Your task to perform on an android device: Open network settings Image 0: 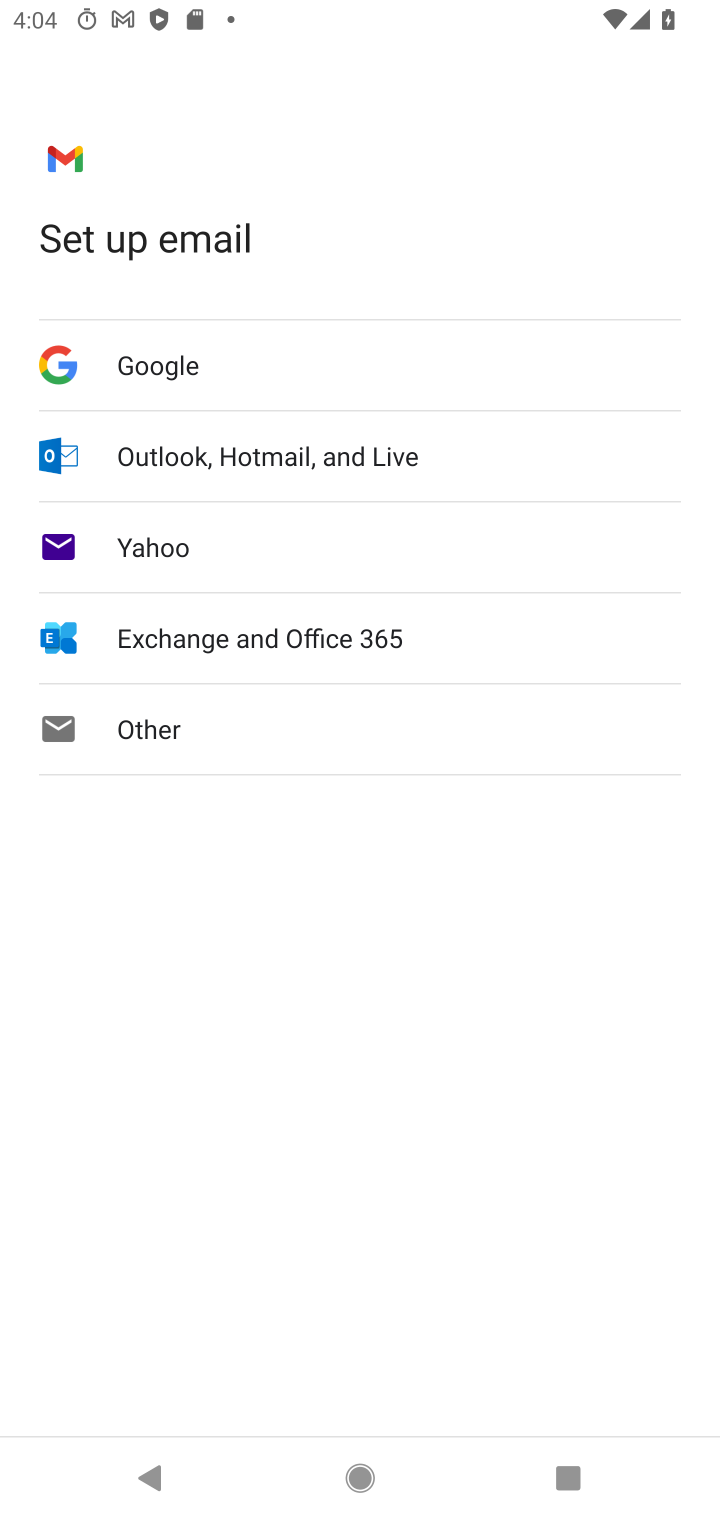
Step 0: press home button
Your task to perform on an android device: Open network settings Image 1: 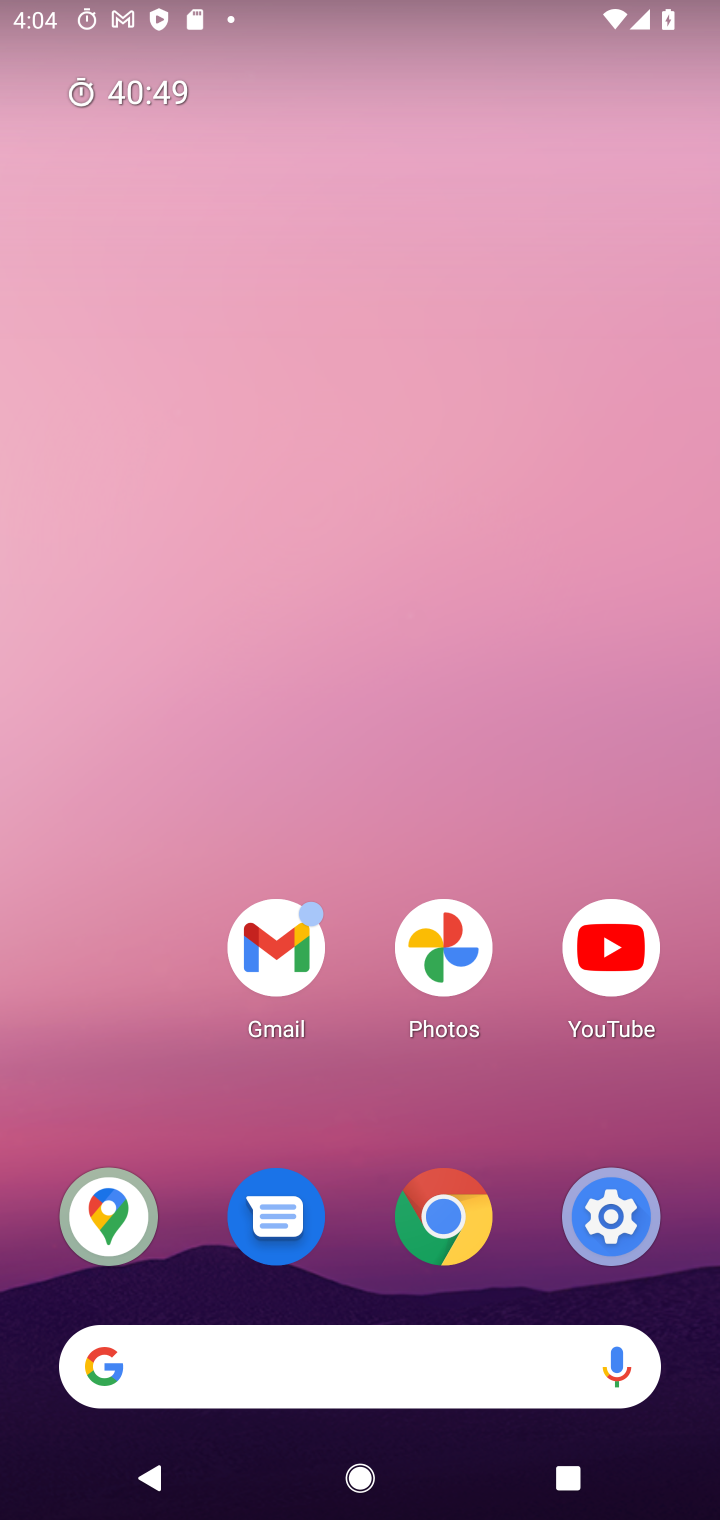
Step 1: drag from (68, 1299) to (541, 152)
Your task to perform on an android device: Open network settings Image 2: 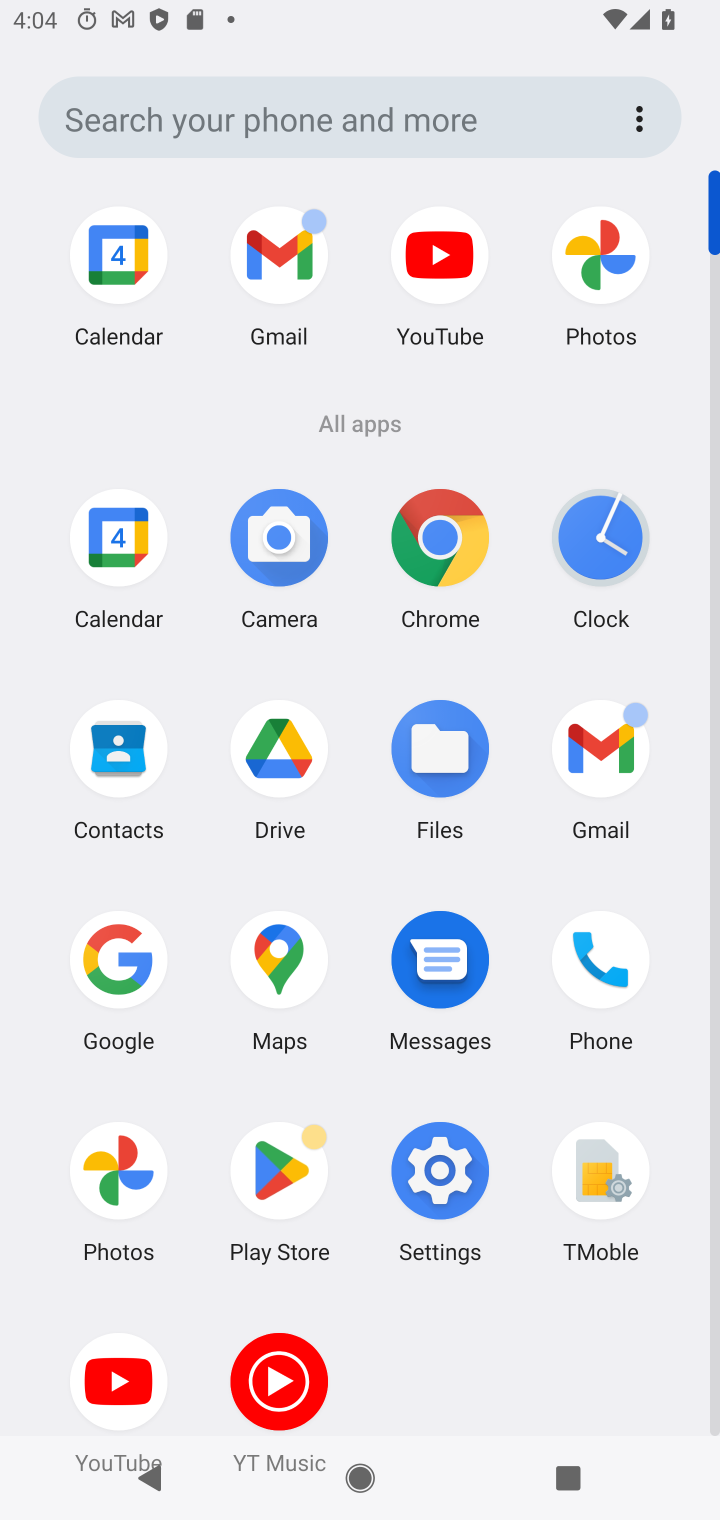
Step 2: click (434, 1223)
Your task to perform on an android device: Open network settings Image 3: 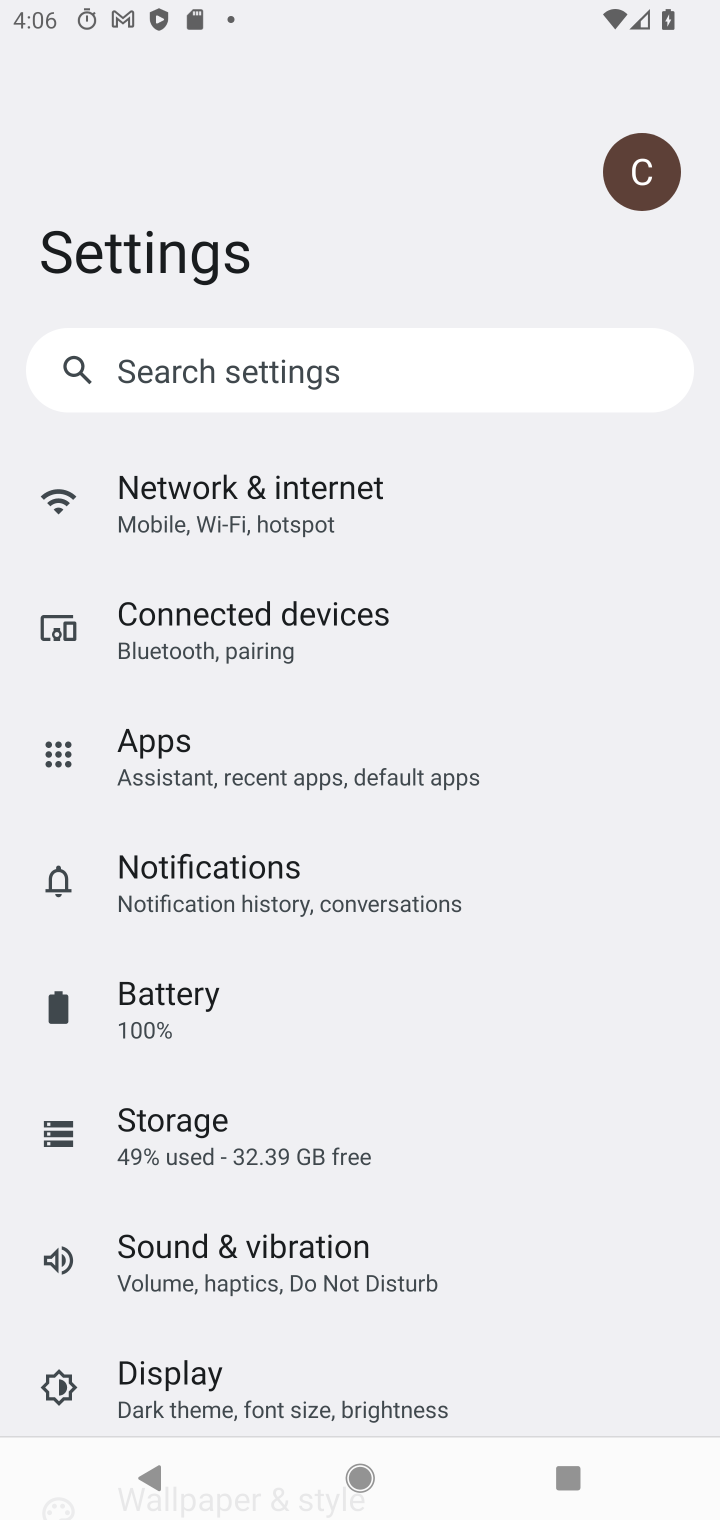
Step 3: click (446, 497)
Your task to perform on an android device: Open network settings Image 4: 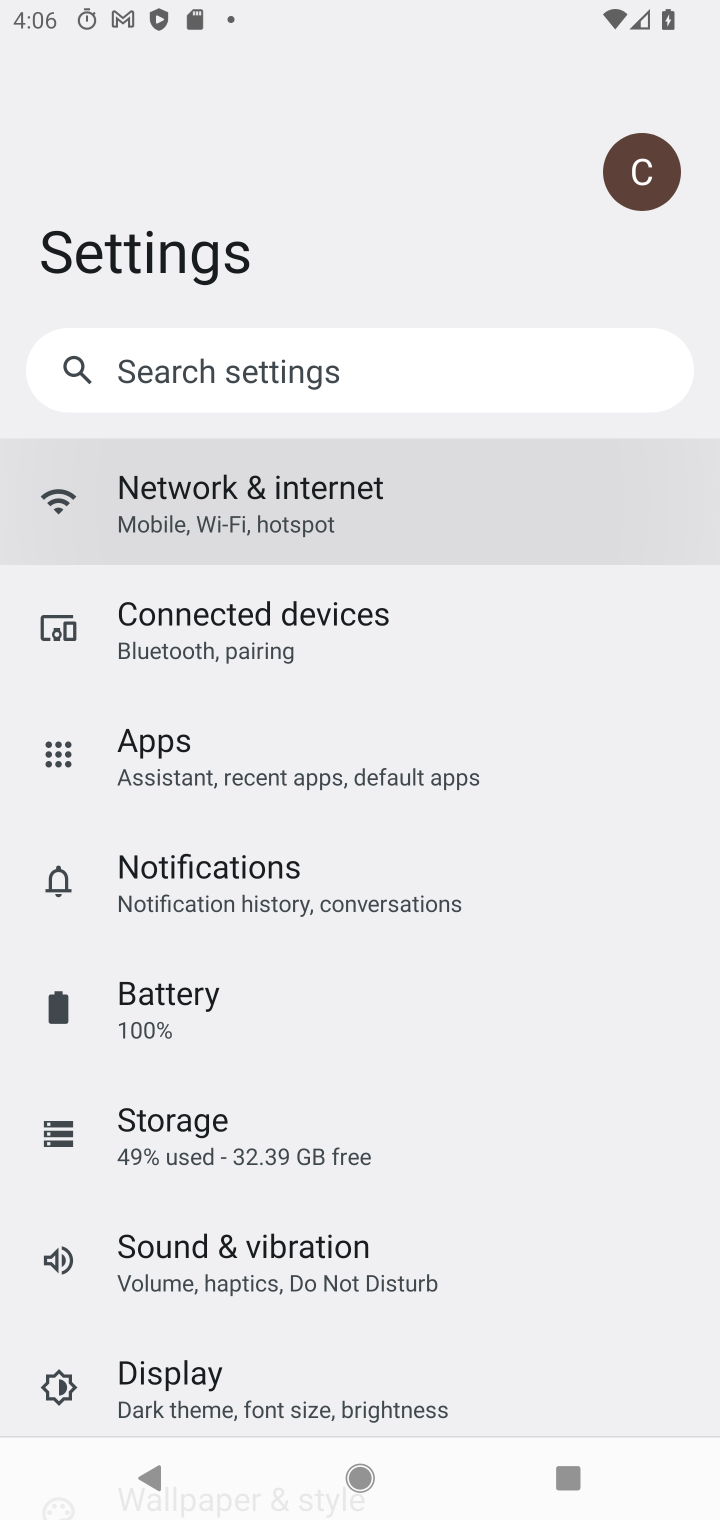
Step 4: task complete